Your task to perform on an android device: toggle notifications settings in the gmail app Image 0: 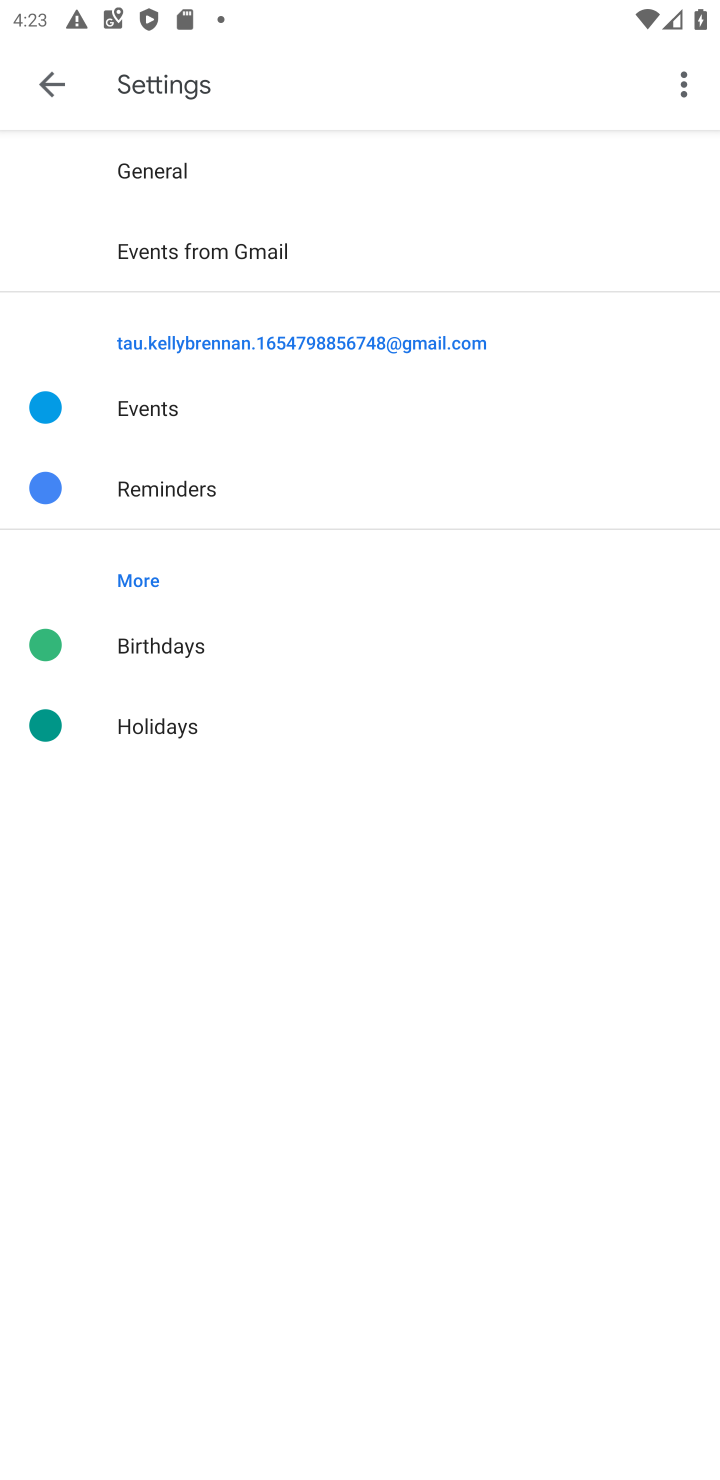
Step 0: press home button
Your task to perform on an android device: toggle notifications settings in the gmail app Image 1: 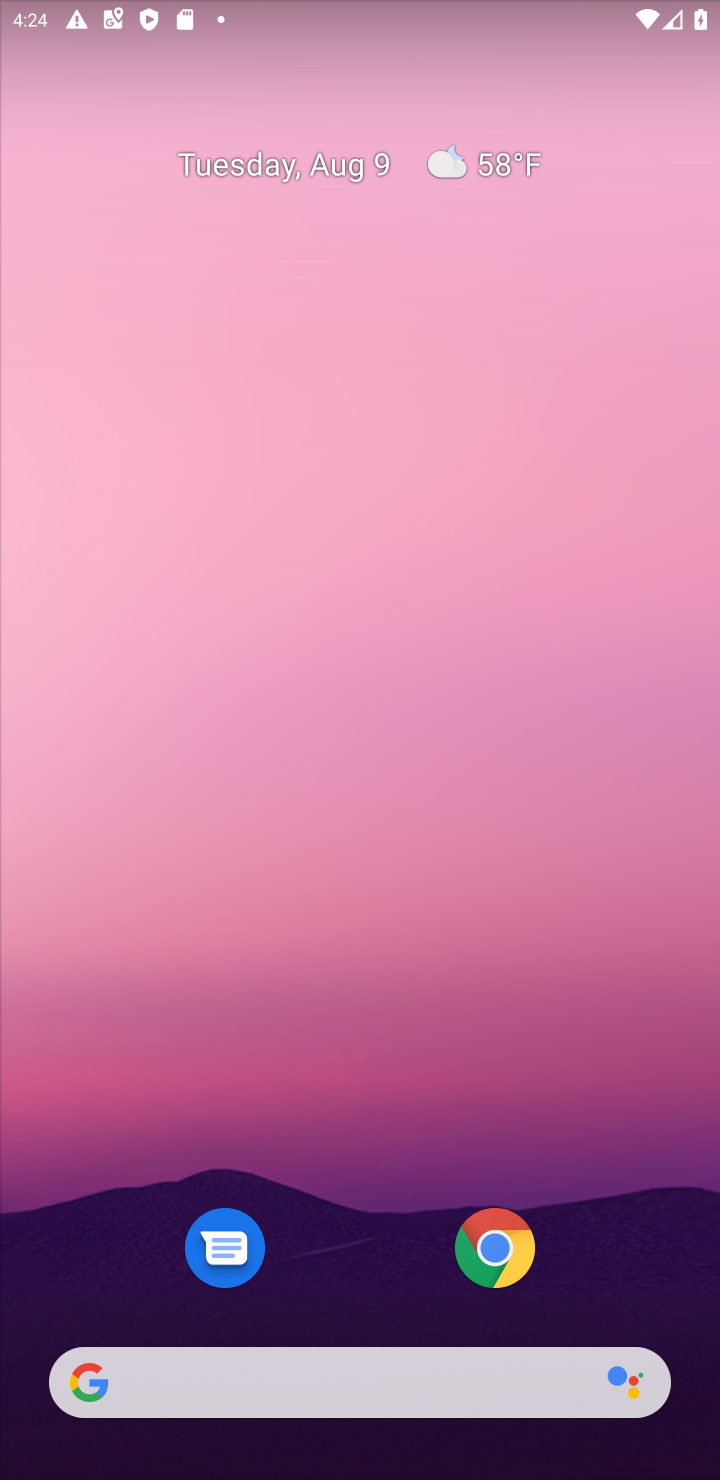
Step 1: drag from (317, 1158) to (143, 102)
Your task to perform on an android device: toggle notifications settings in the gmail app Image 2: 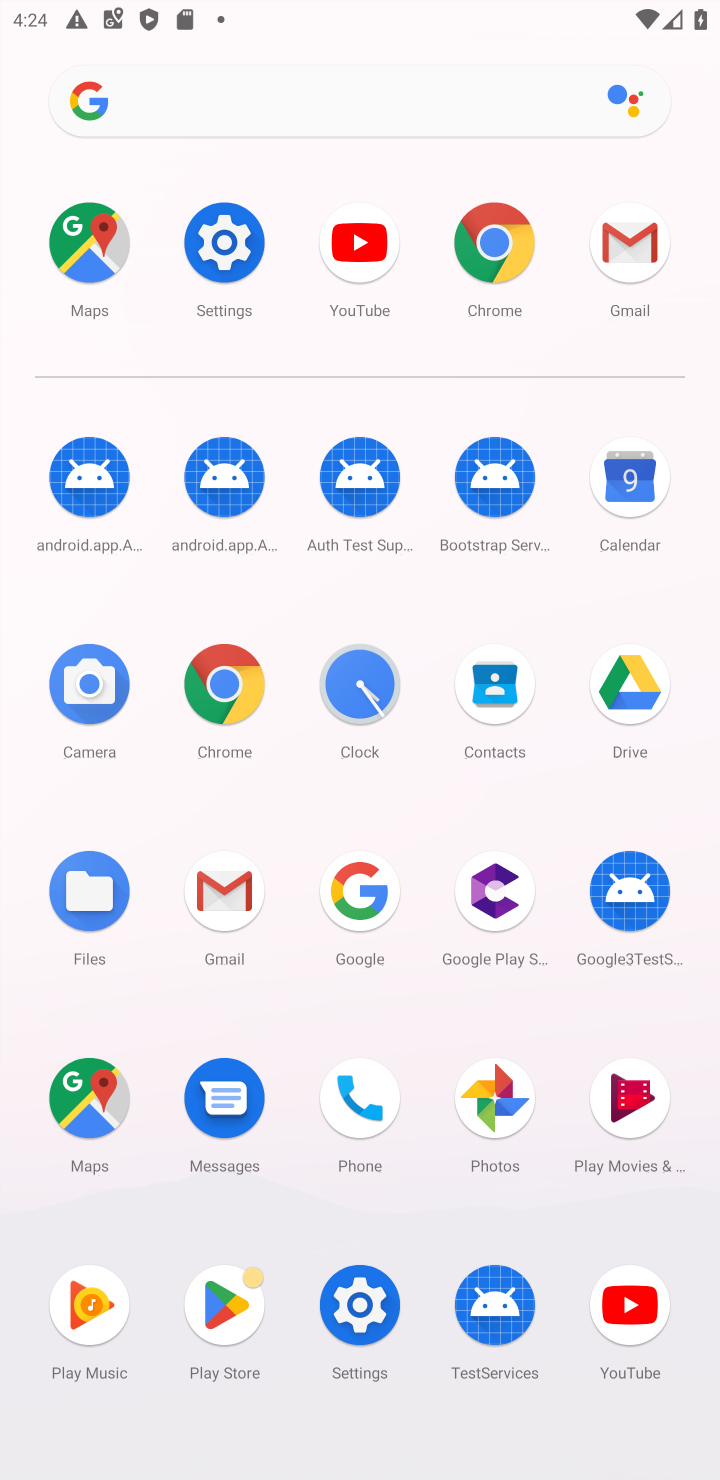
Step 2: click (234, 901)
Your task to perform on an android device: toggle notifications settings in the gmail app Image 3: 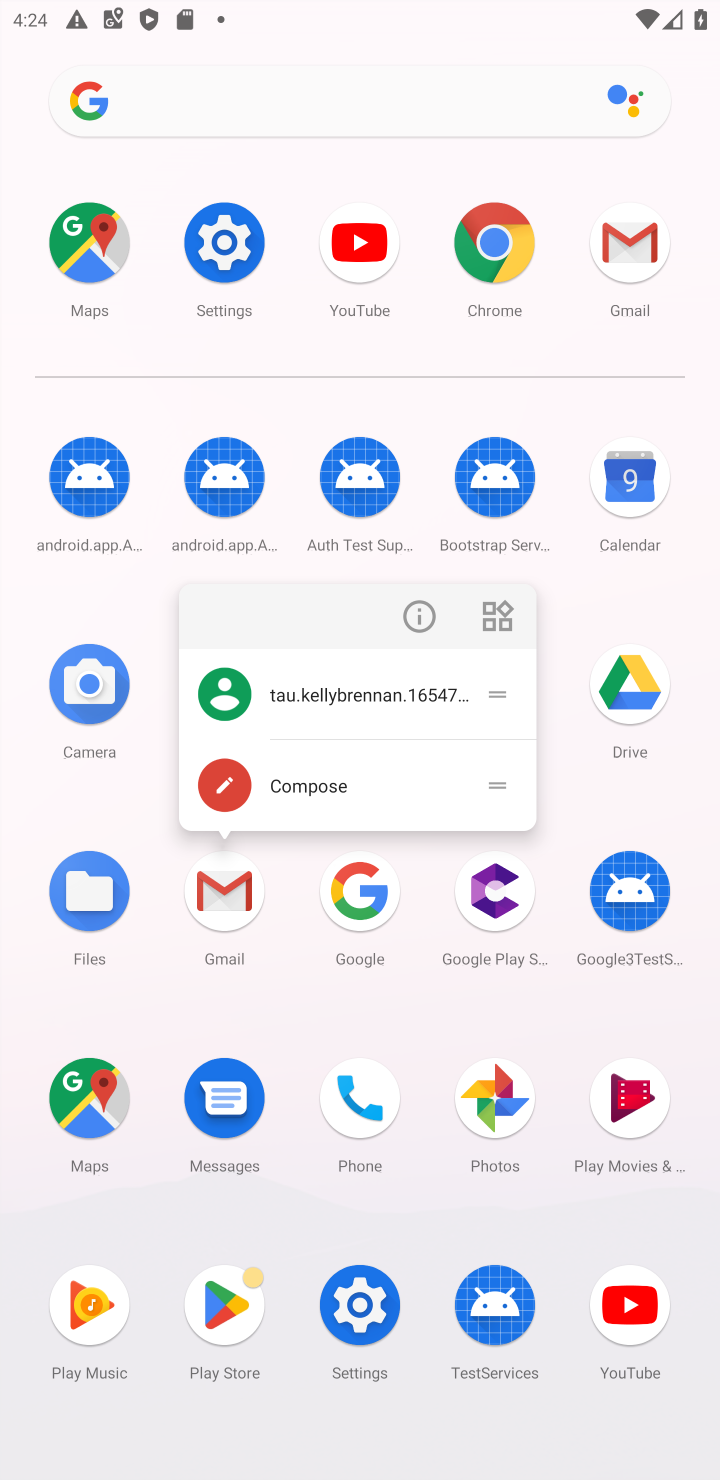
Step 3: click (228, 902)
Your task to perform on an android device: toggle notifications settings in the gmail app Image 4: 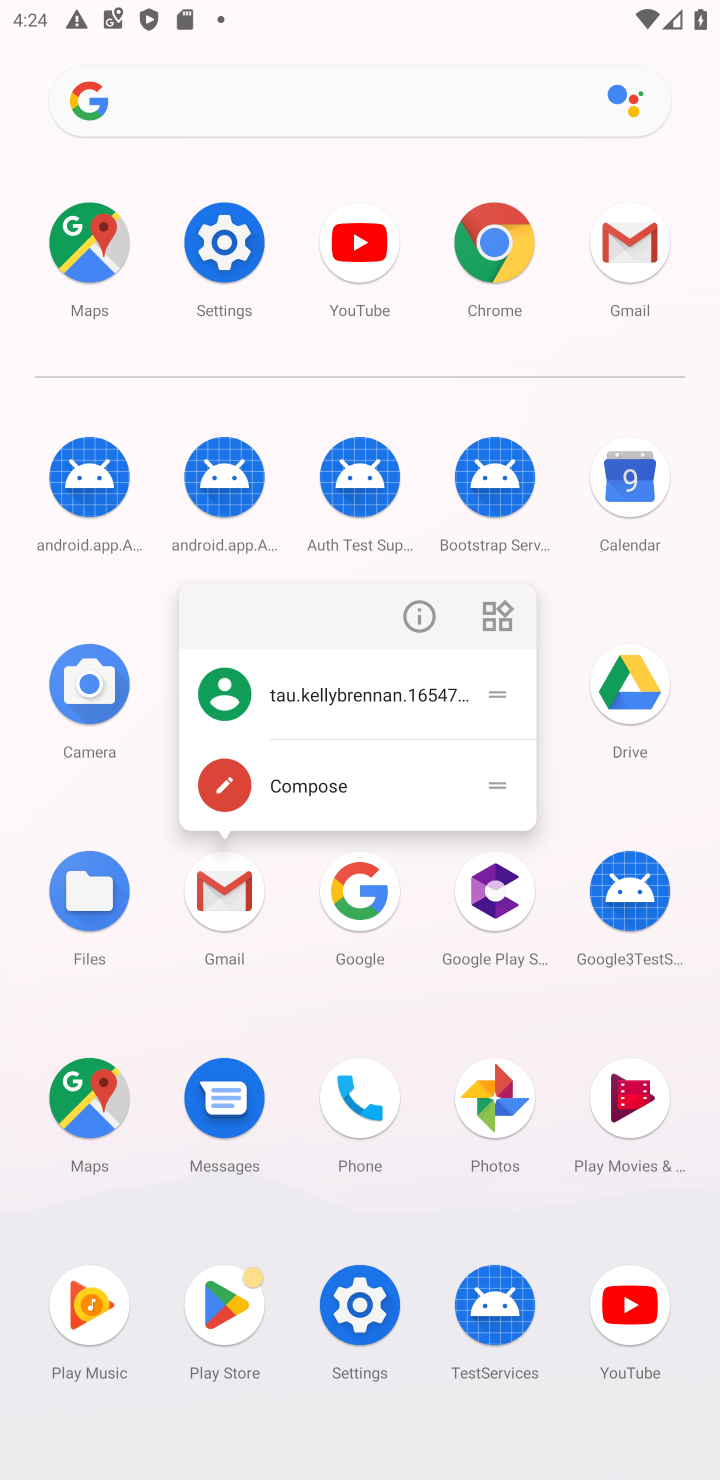
Step 4: click (226, 890)
Your task to perform on an android device: toggle notifications settings in the gmail app Image 5: 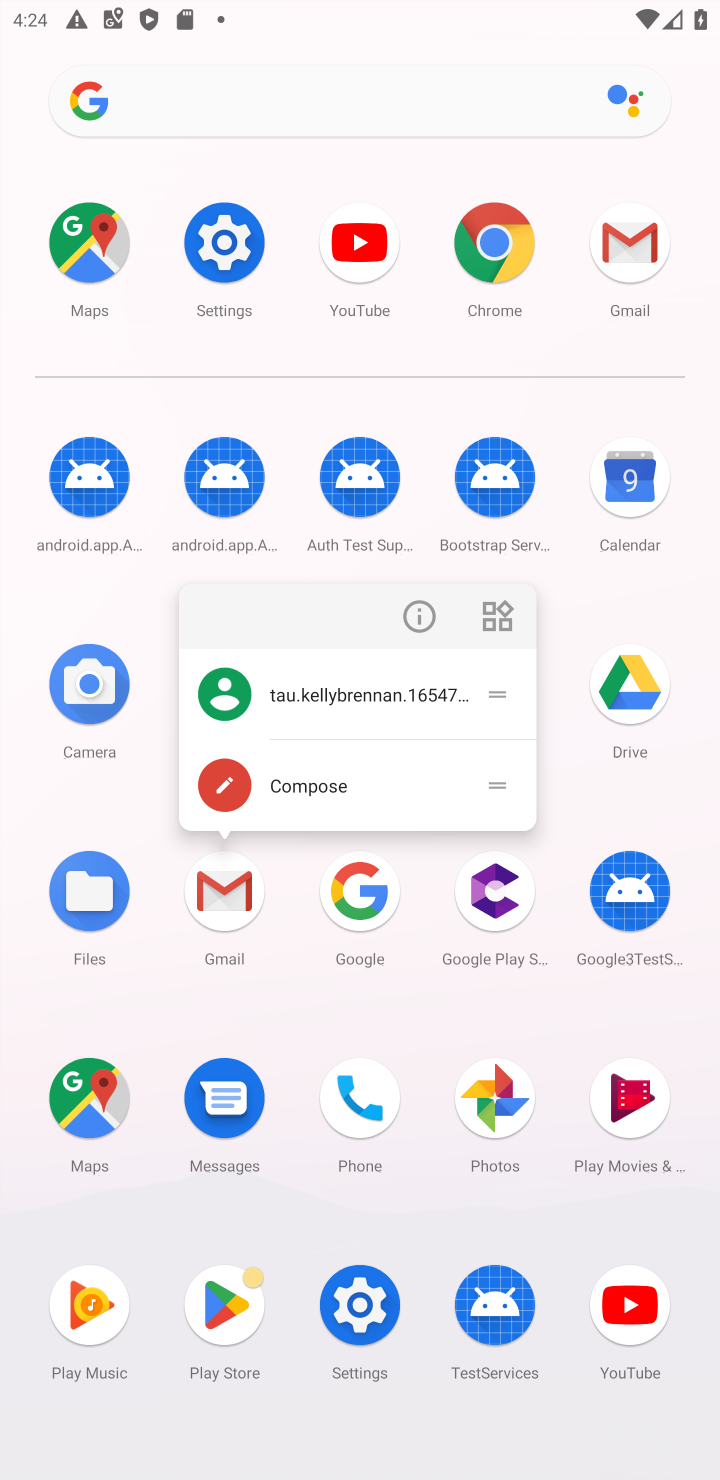
Step 5: click (289, 993)
Your task to perform on an android device: toggle notifications settings in the gmail app Image 6: 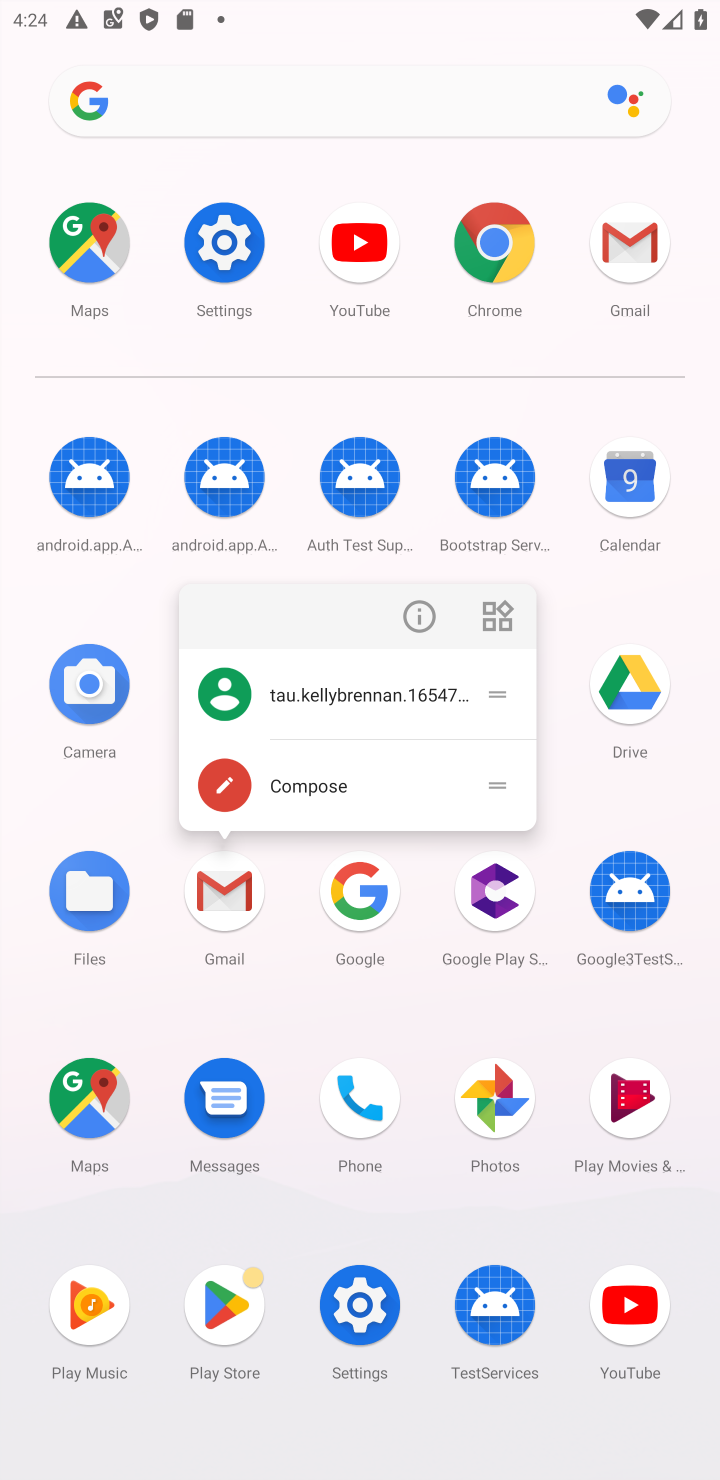
Step 6: click (225, 883)
Your task to perform on an android device: toggle notifications settings in the gmail app Image 7: 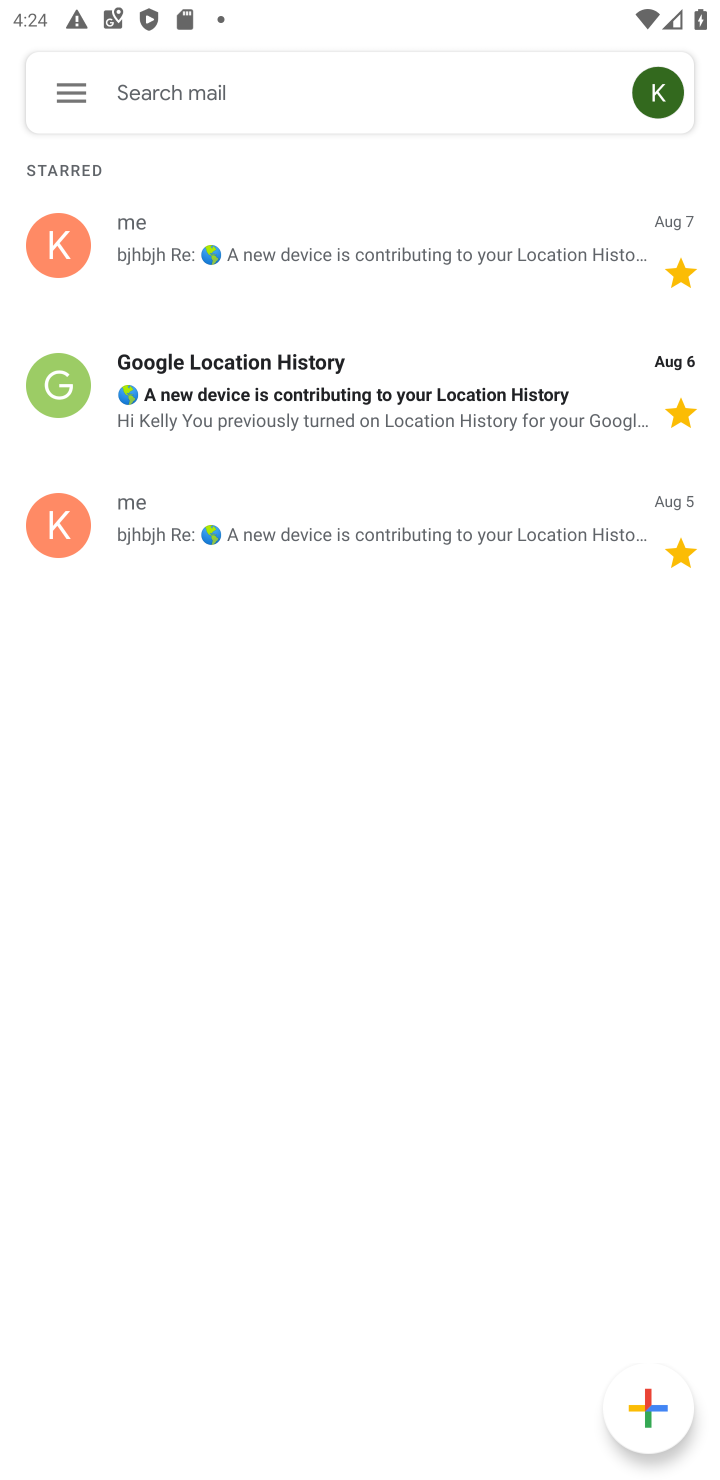
Step 7: click (78, 70)
Your task to perform on an android device: toggle notifications settings in the gmail app Image 8: 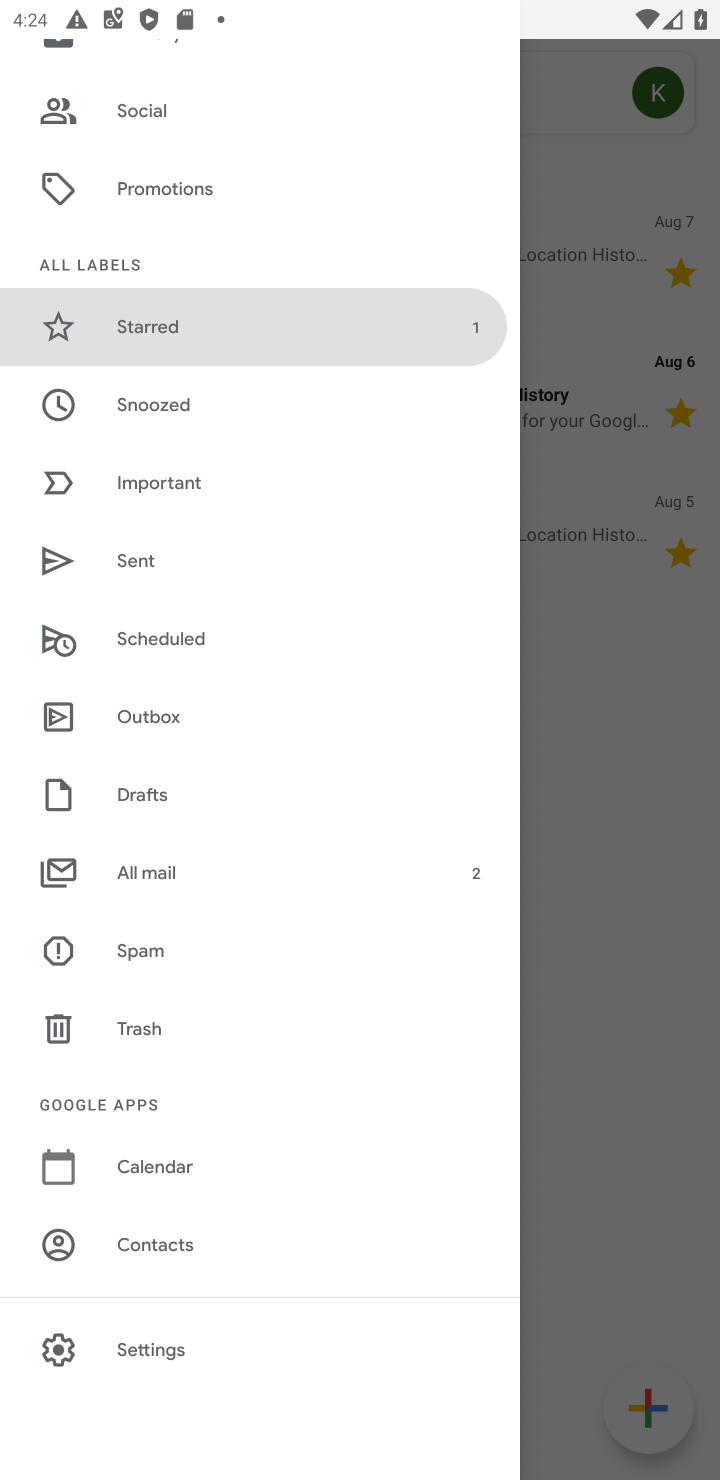
Step 8: click (165, 1350)
Your task to perform on an android device: toggle notifications settings in the gmail app Image 9: 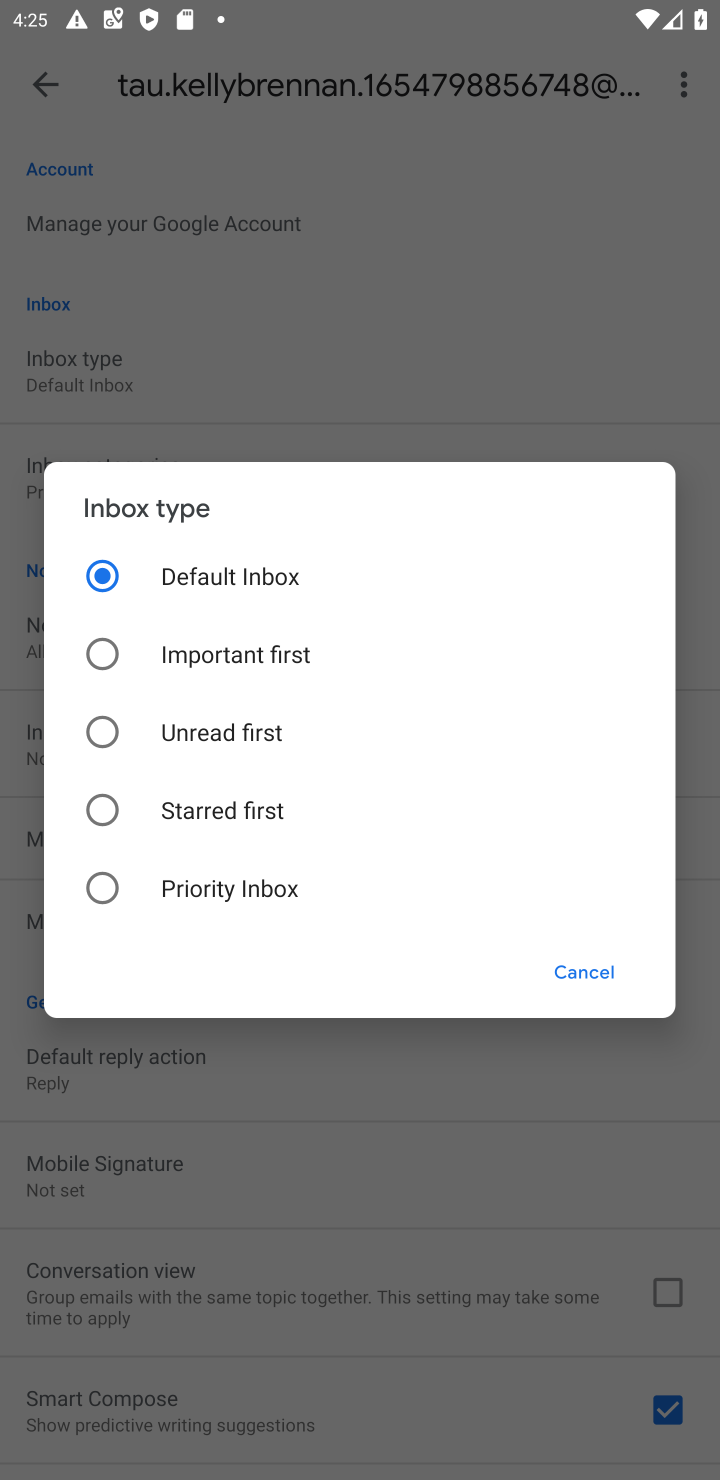
Step 9: click (574, 959)
Your task to perform on an android device: toggle notifications settings in the gmail app Image 10: 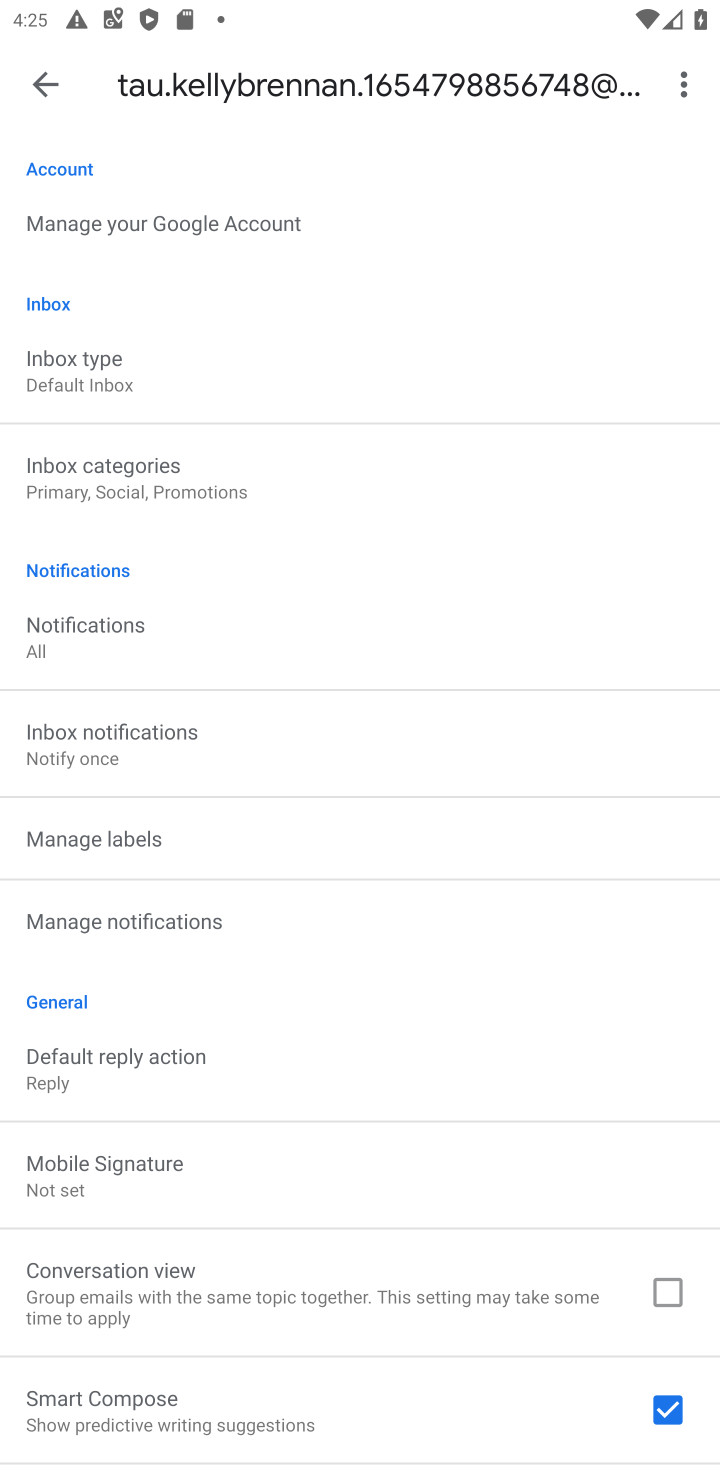
Step 10: click (145, 922)
Your task to perform on an android device: toggle notifications settings in the gmail app Image 11: 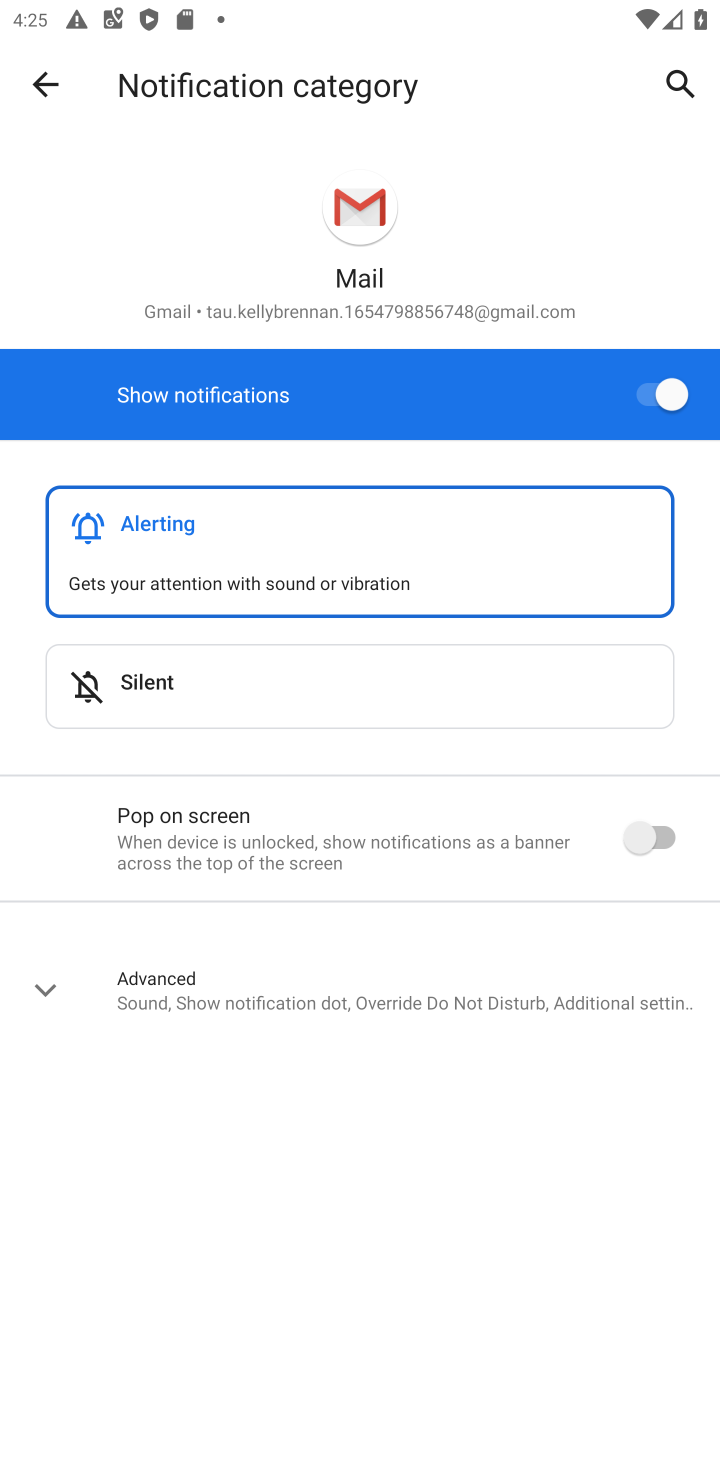
Step 11: click (628, 395)
Your task to perform on an android device: toggle notifications settings in the gmail app Image 12: 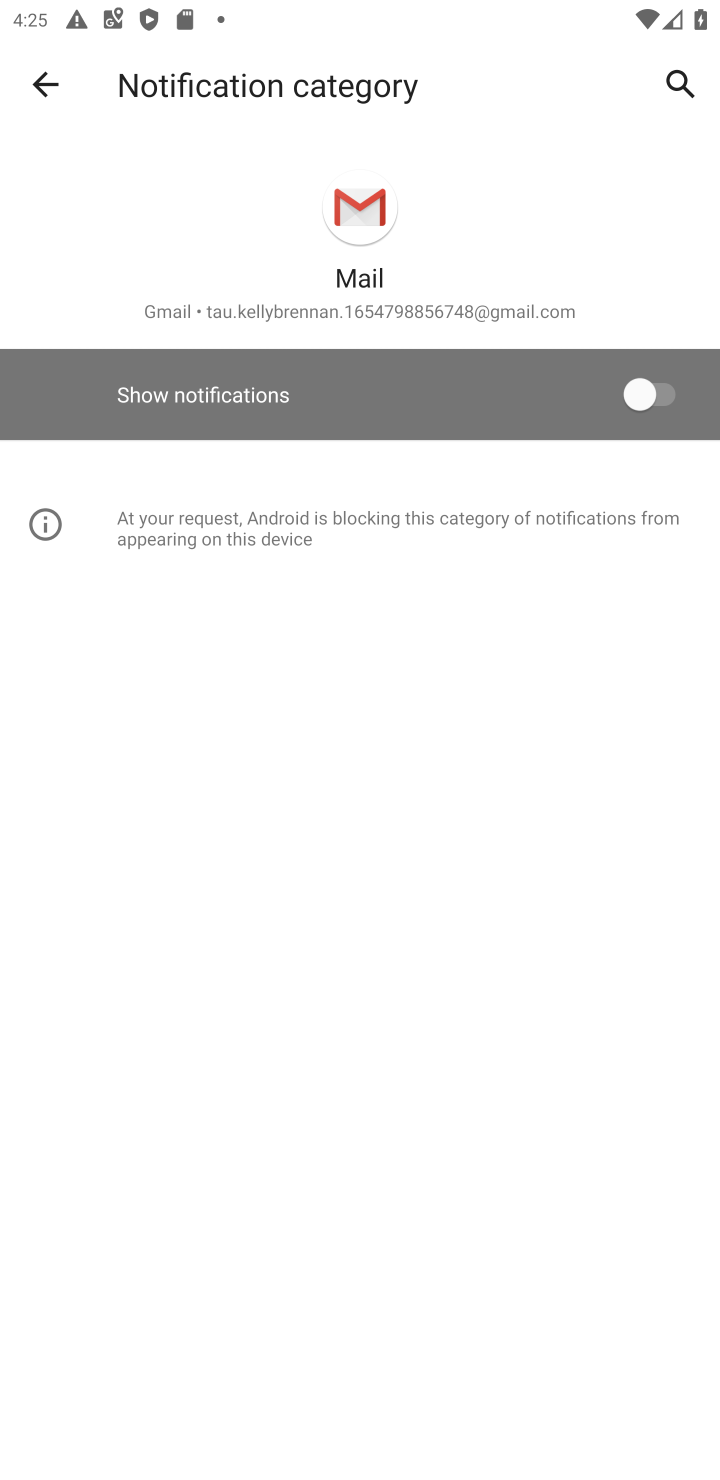
Step 12: task complete